Your task to perform on an android device: What's the weather? Image 0: 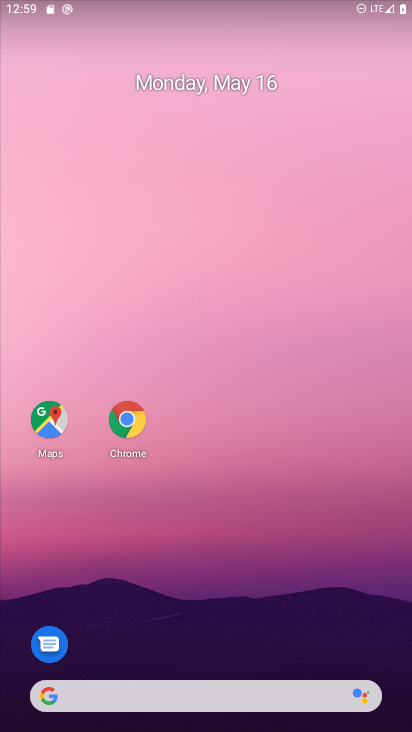
Step 0: drag from (182, 617) to (200, 270)
Your task to perform on an android device: What's the weather? Image 1: 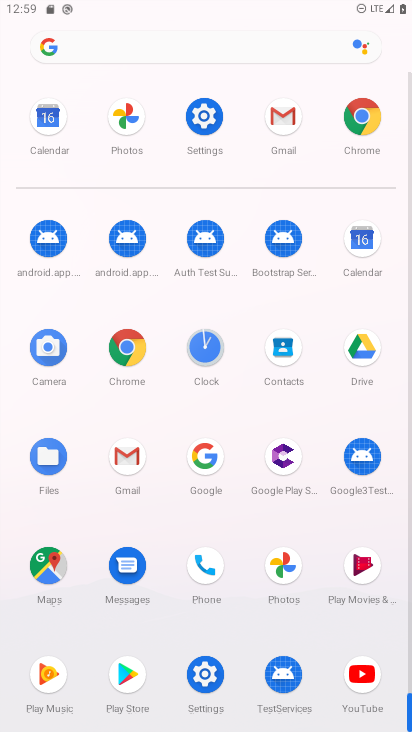
Step 1: click (157, 32)
Your task to perform on an android device: What's the weather? Image 2: 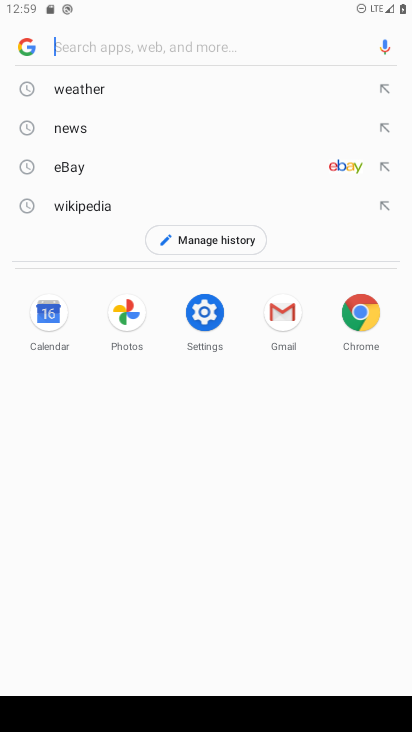
Step 2: click (80, 98)
Your task to perform on an android device: What's the weather? Image 3: 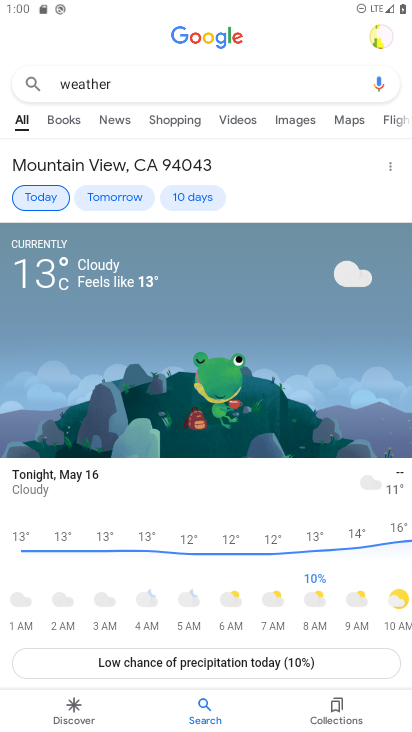
Step 3: task complete